Your task to perform on an android device: Search for jbl flip 4 on costco.com, select the first entry, and add it to the cart. Image 0: 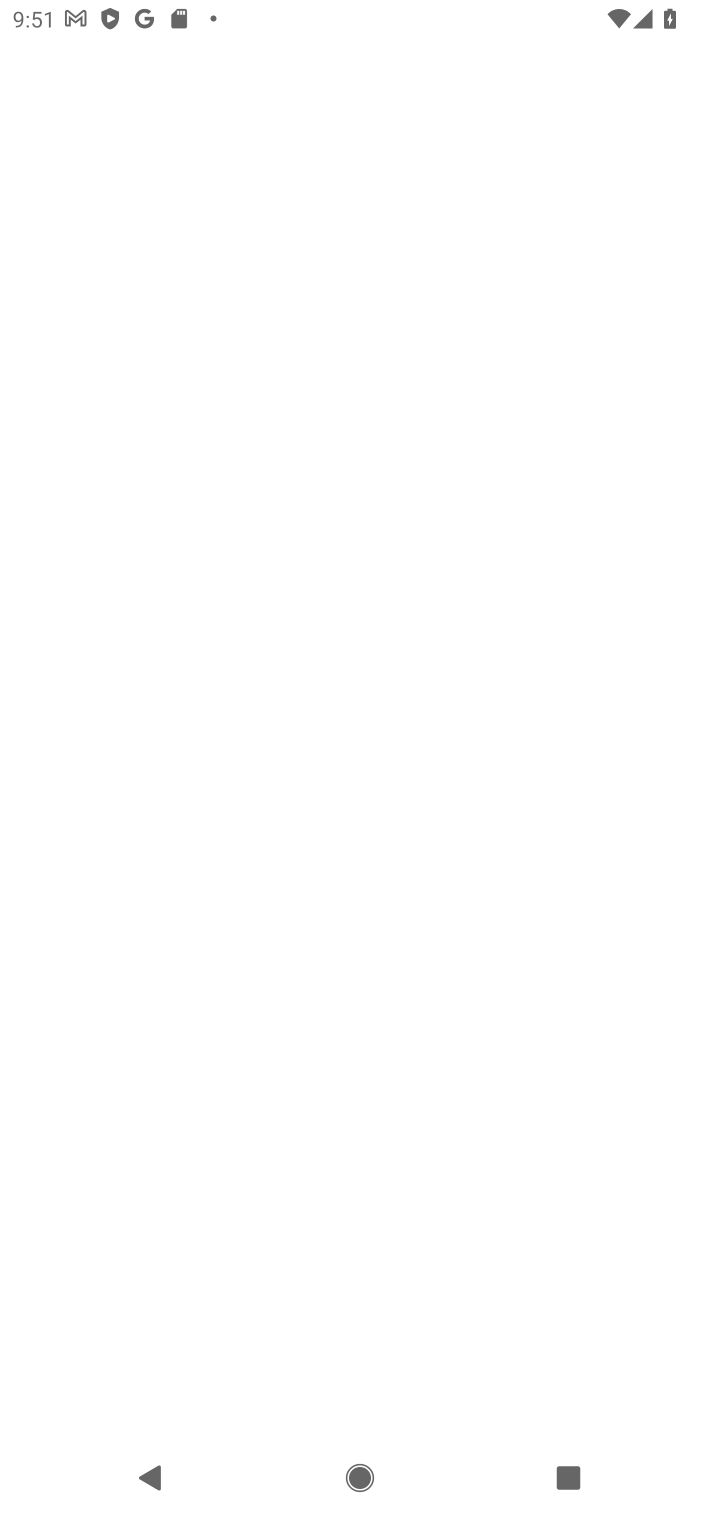
Step 0: press home button
Your task to perform on an android device: Search for jbl flip 4 on costco.com, select the first entry, and add it to the cart. Image 1: 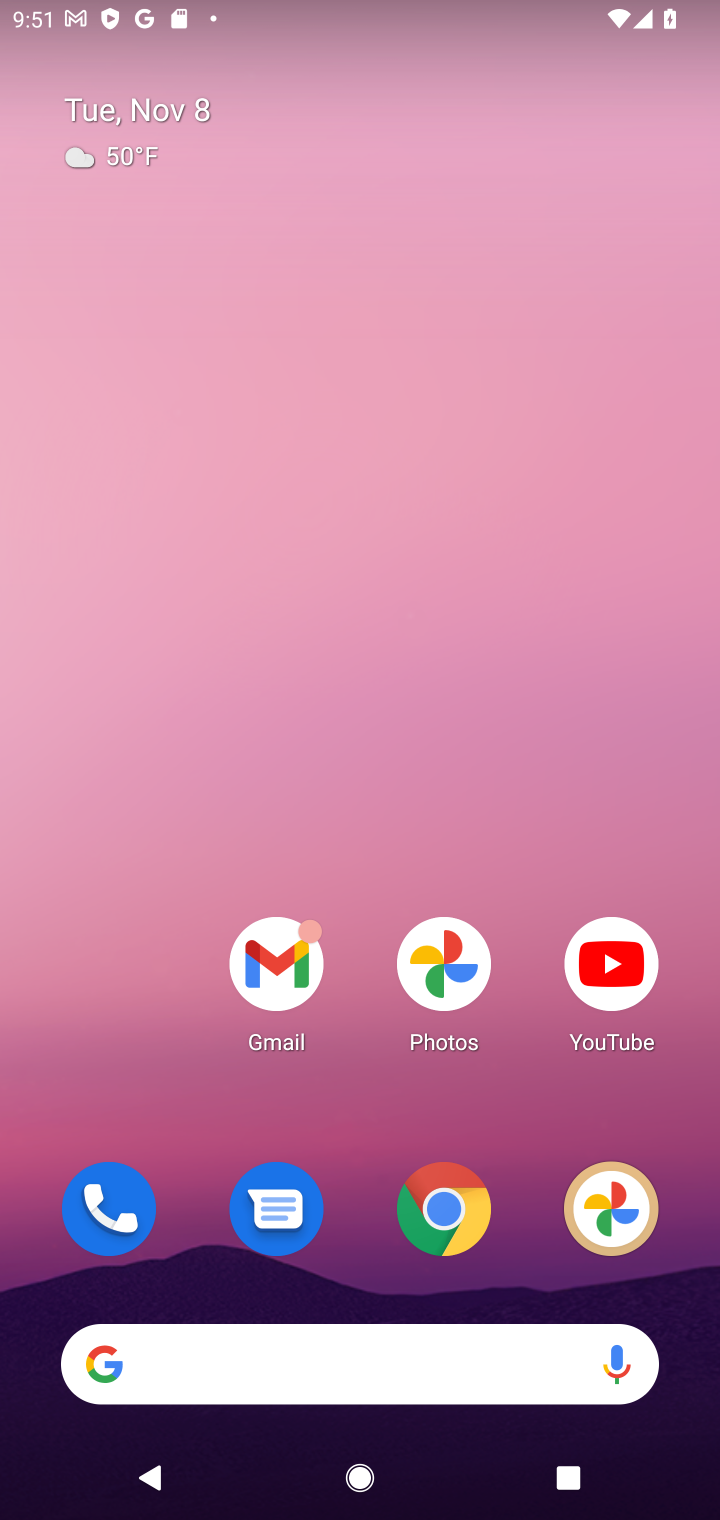
Step 1: click (432, 1213)
Your task to perform on an android device: Search for jbl flip 4 on costco.com, select the first entry, and add it to the cart. Image 2: 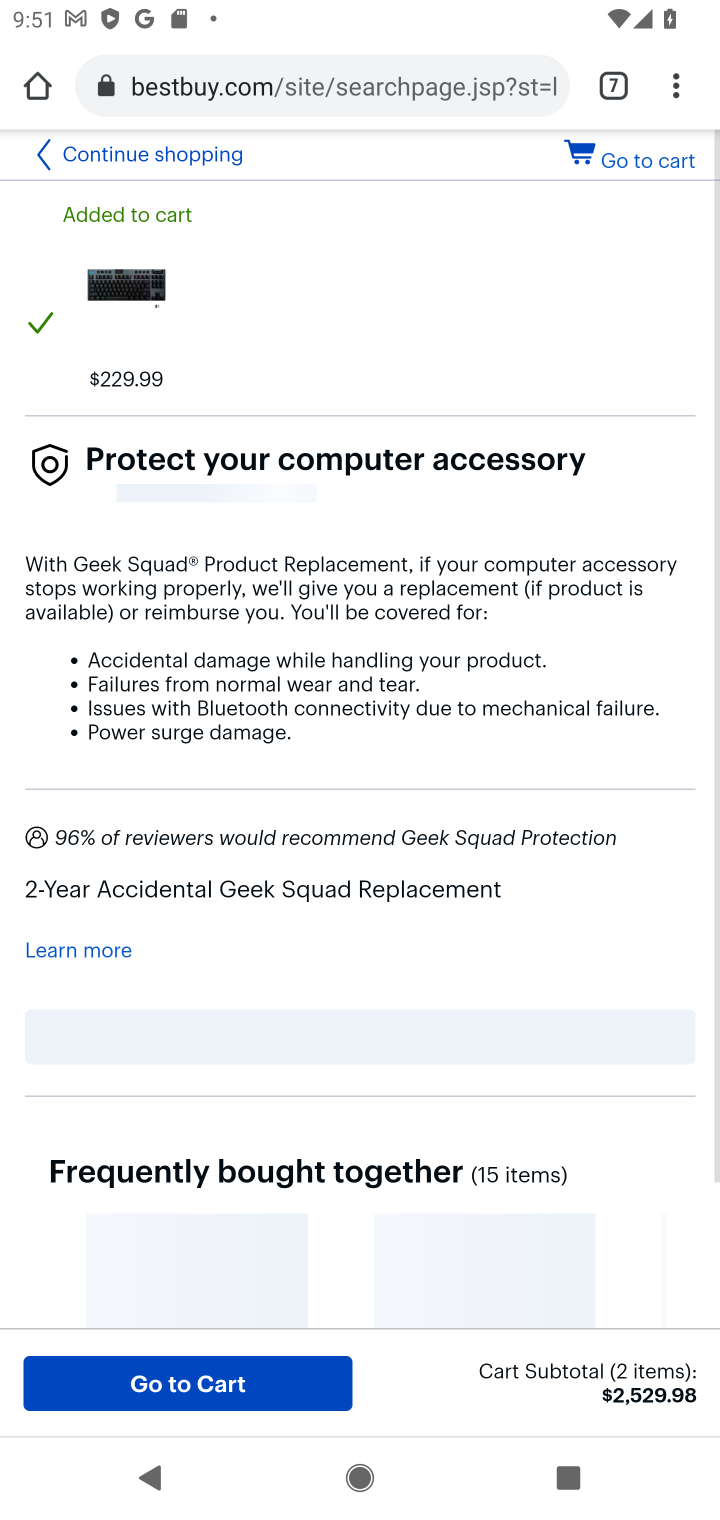
Step 2: click (610, 76)
Your task to perform on an android device: Search for jbl flip 4 on costco.com, select the first entry, and add it to the cart. Image 3: 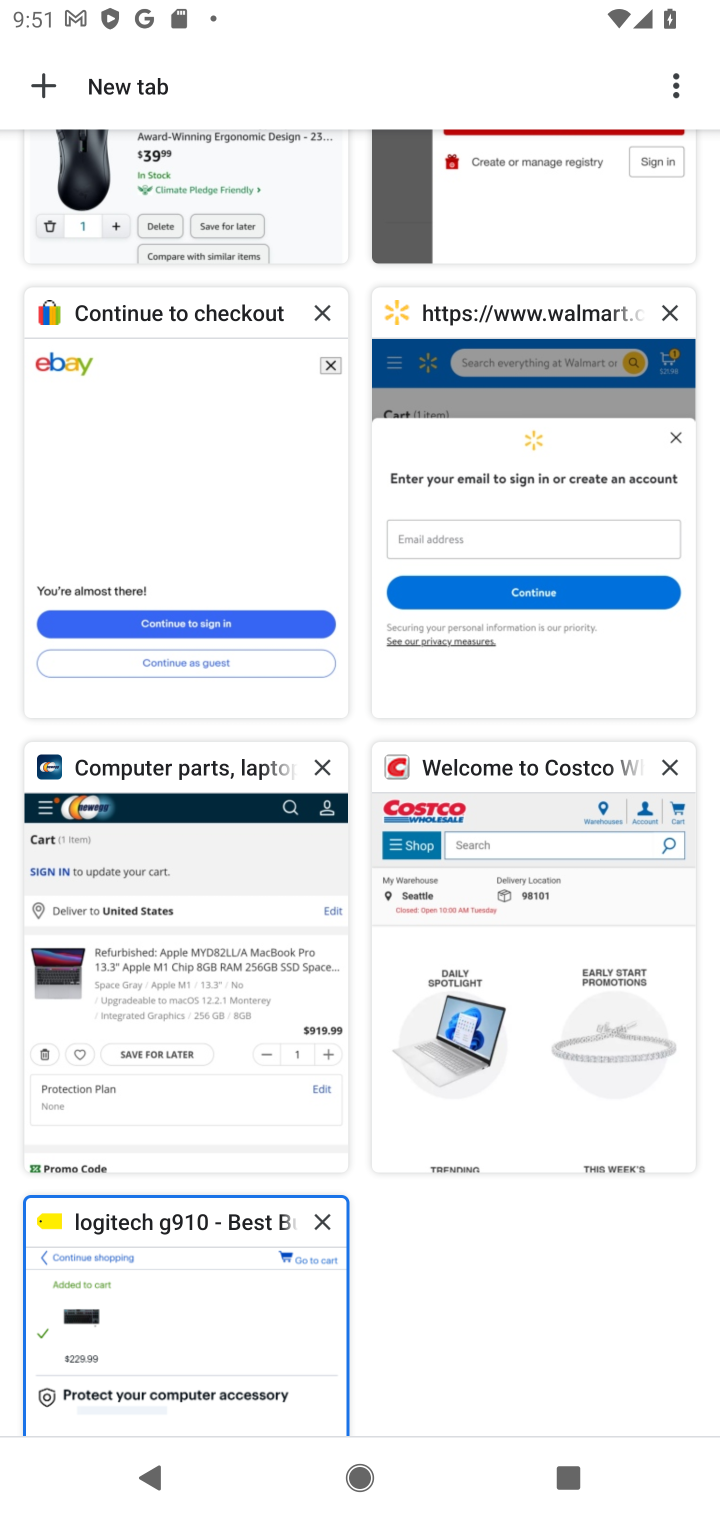
Step 3: click (529, 910)
Your task to perform on an android device: Search for jbl flip 4 on costco.com, select the first entry, and add it to the cart. Image 4: 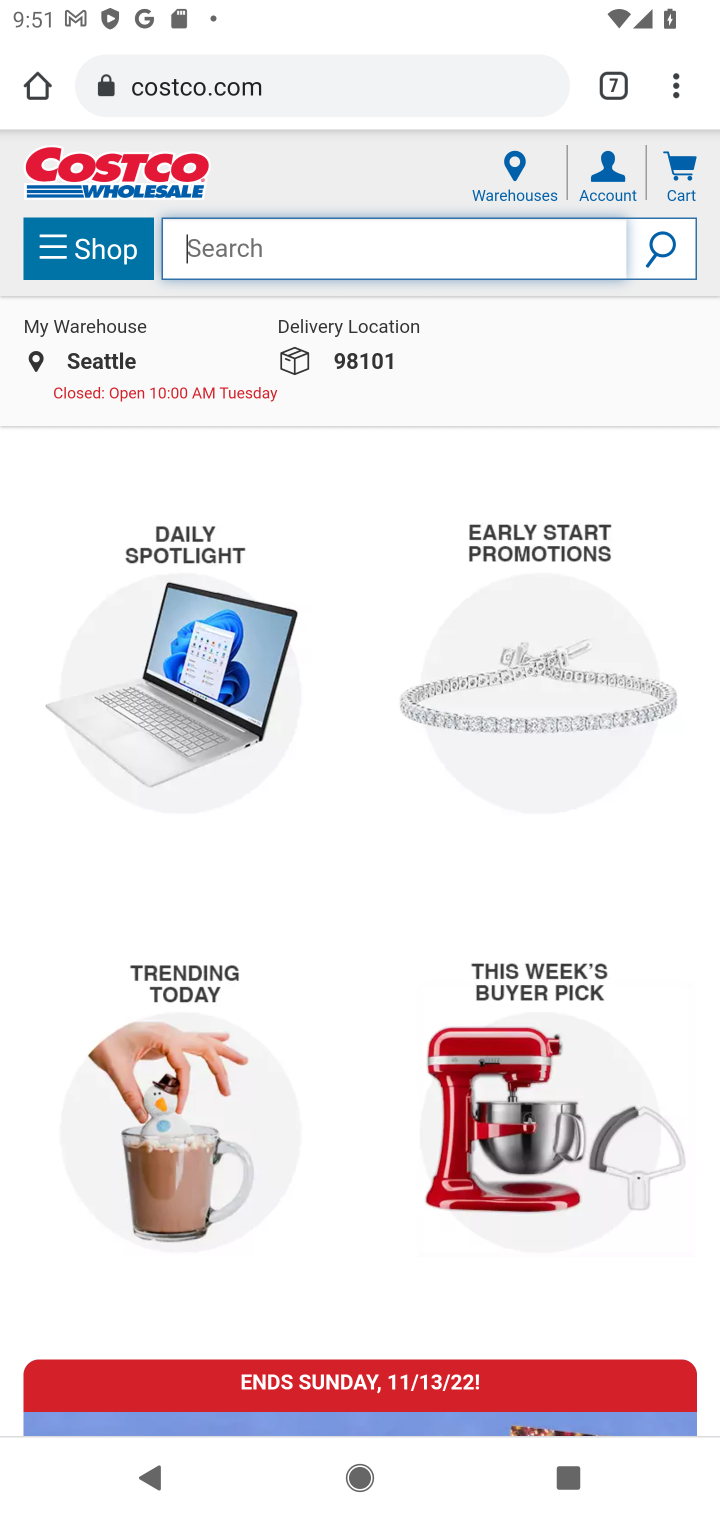
Step 4: click (248, 250)
Your task to perform on an android device: Search for jbl flip 4 on costco.com, select the first entry, and add it to the cart. Image 5: 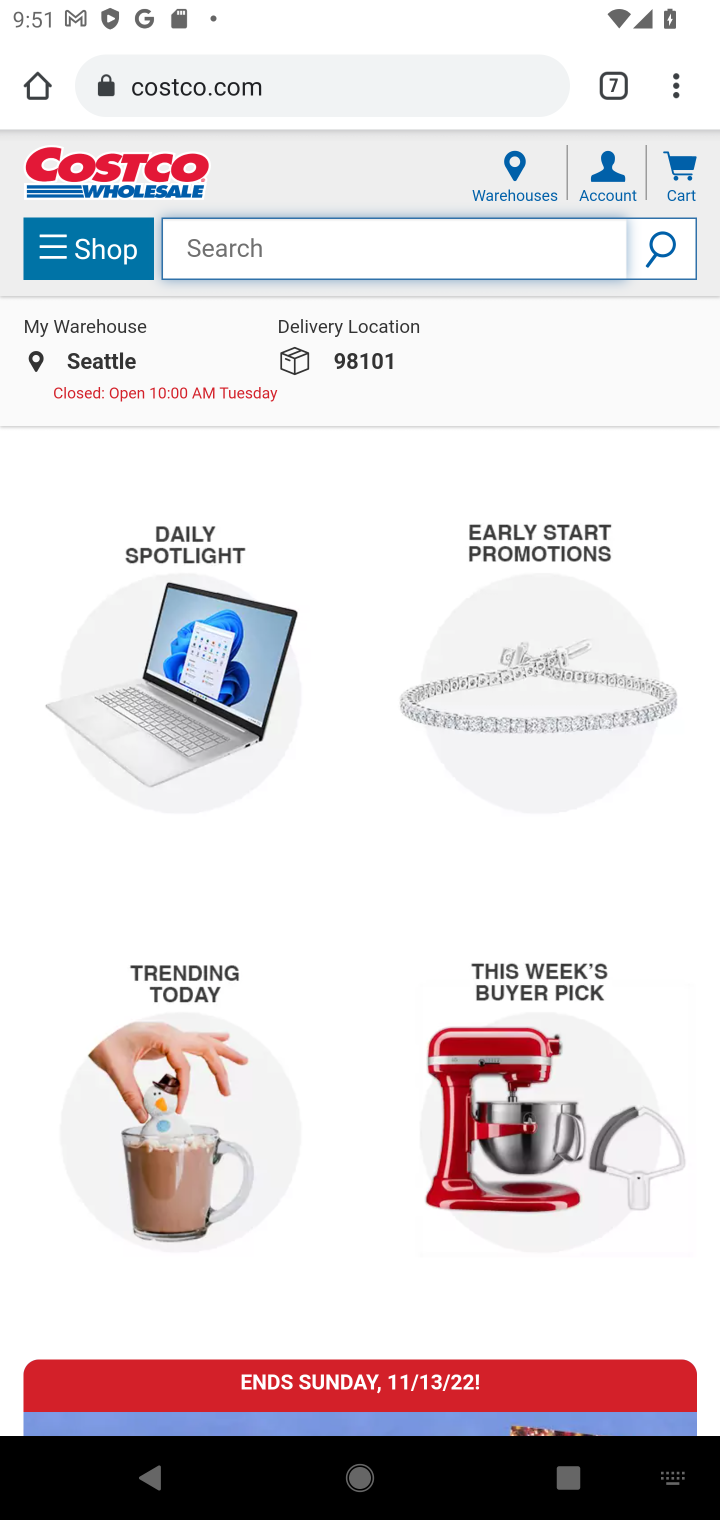
Step 5: type "jbl flip 4"
Your task to perform on an android device: Search for jbl flip 4 on costco.com, select the first entry, and add it to the cart. Image 6: 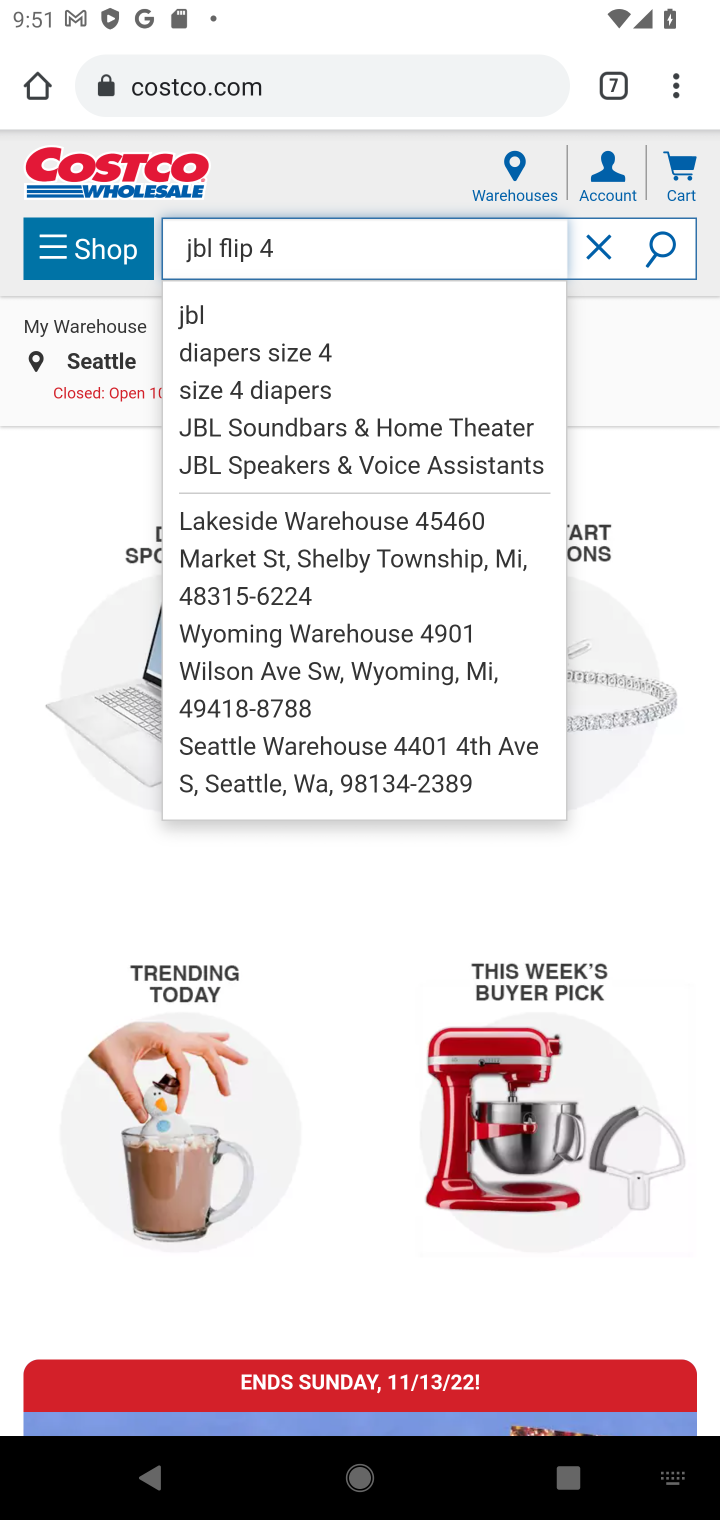
Step 6: click (219, 424)
Your task to perform on an android device: Search for jbl flip 4 on costco.com, select the first entry, and add it to the cart. Image 7: 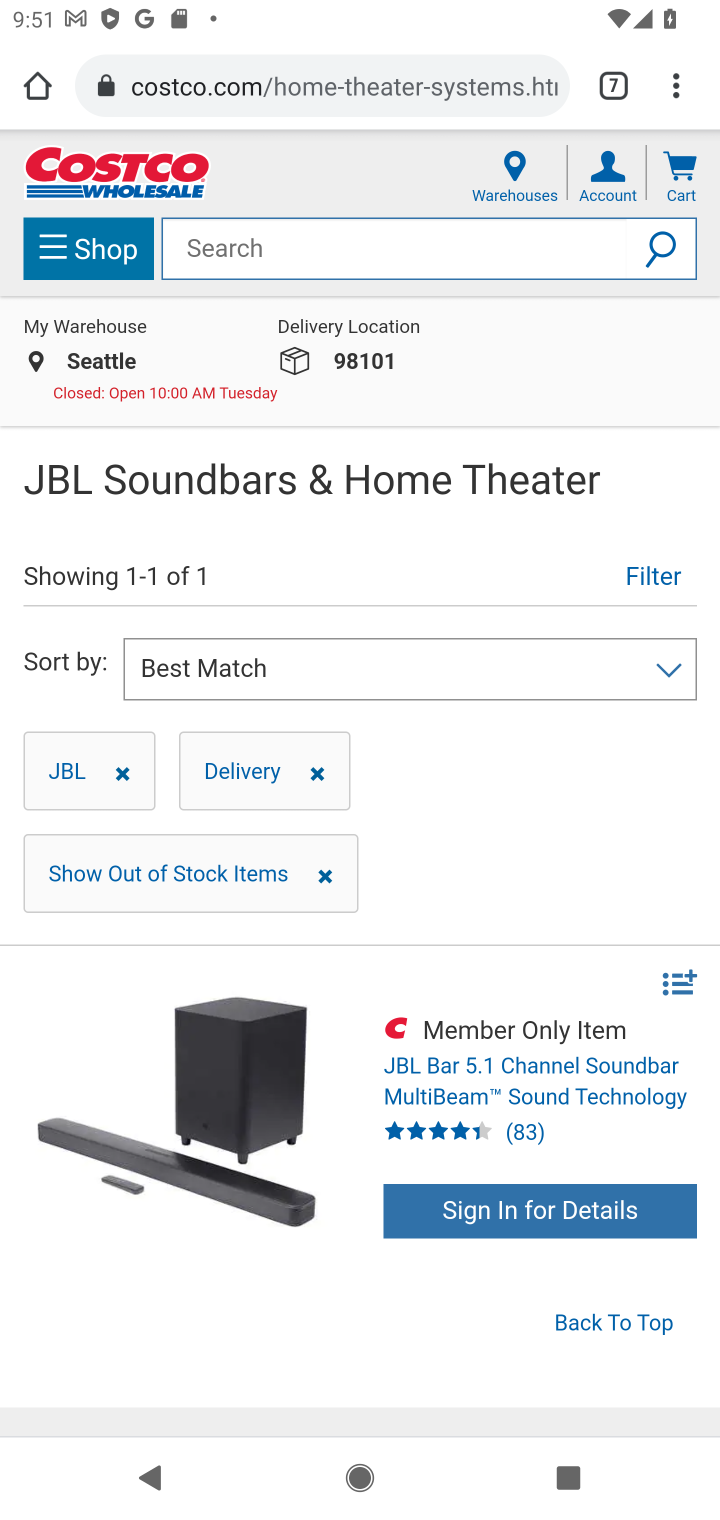
Step 7: drag from (306, 1301) to (423, 607)
Your task to perform on an android device: Search for jbl flip 4 on costco.com, select the first entry, and add it to the cart. Image 8: 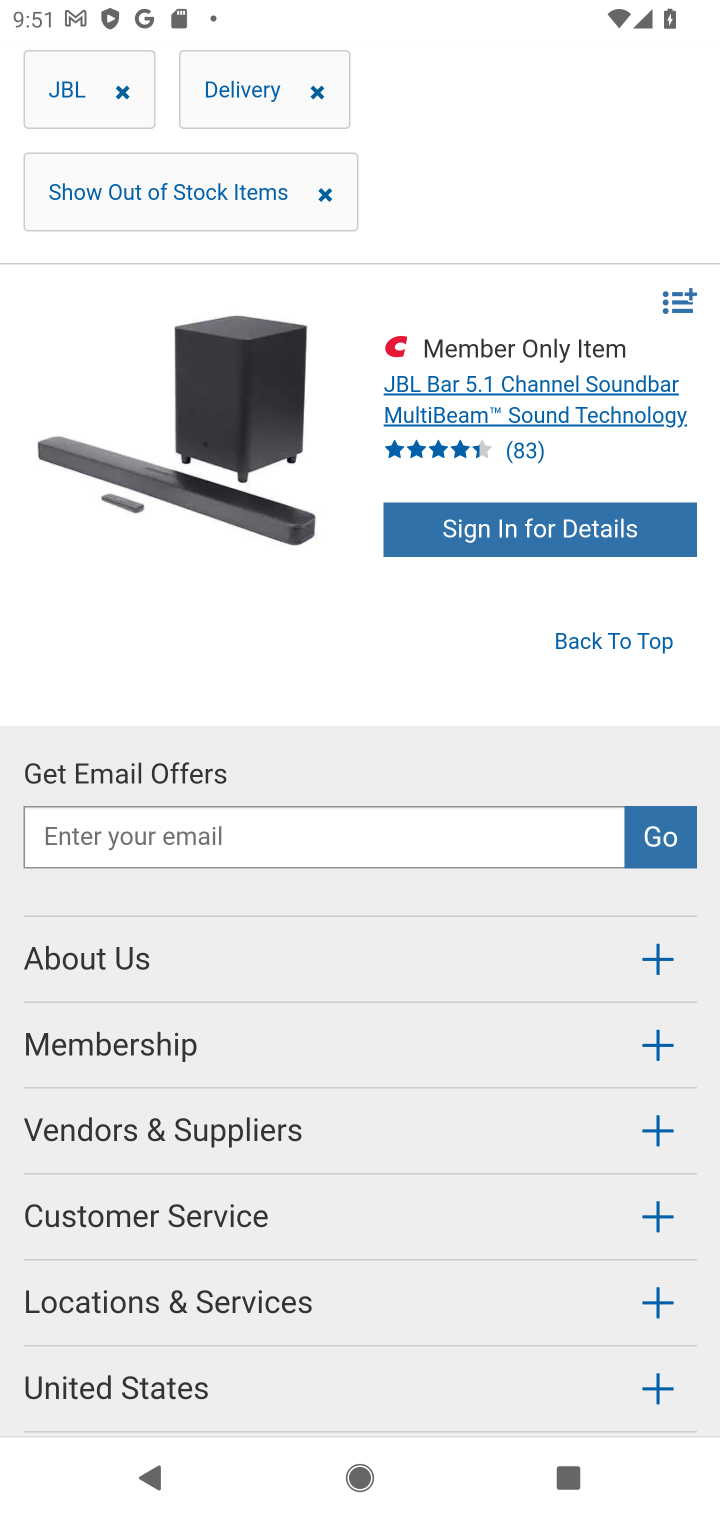
Step 8: click (562, 405)
Your task to perform on an android device: Search for jbl flip 4 on costco.com, select the first entry, and add it to the cart. Image 9: 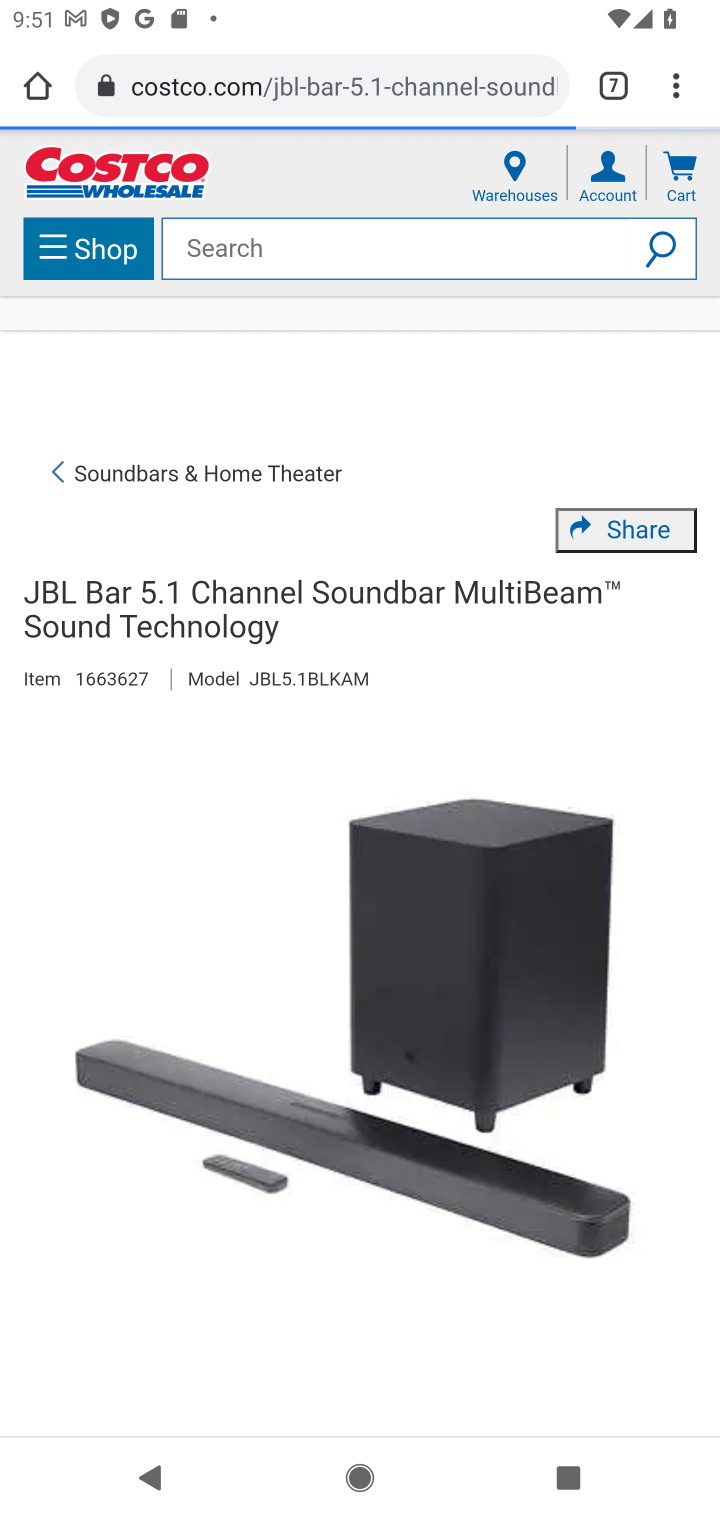
Step 9: drag from (409, 1364) to (430, 723)
Your task to perform on an android device: Search for jbl flip 4 on costco.com, select the first entry, and add it to the cart. Image 10: 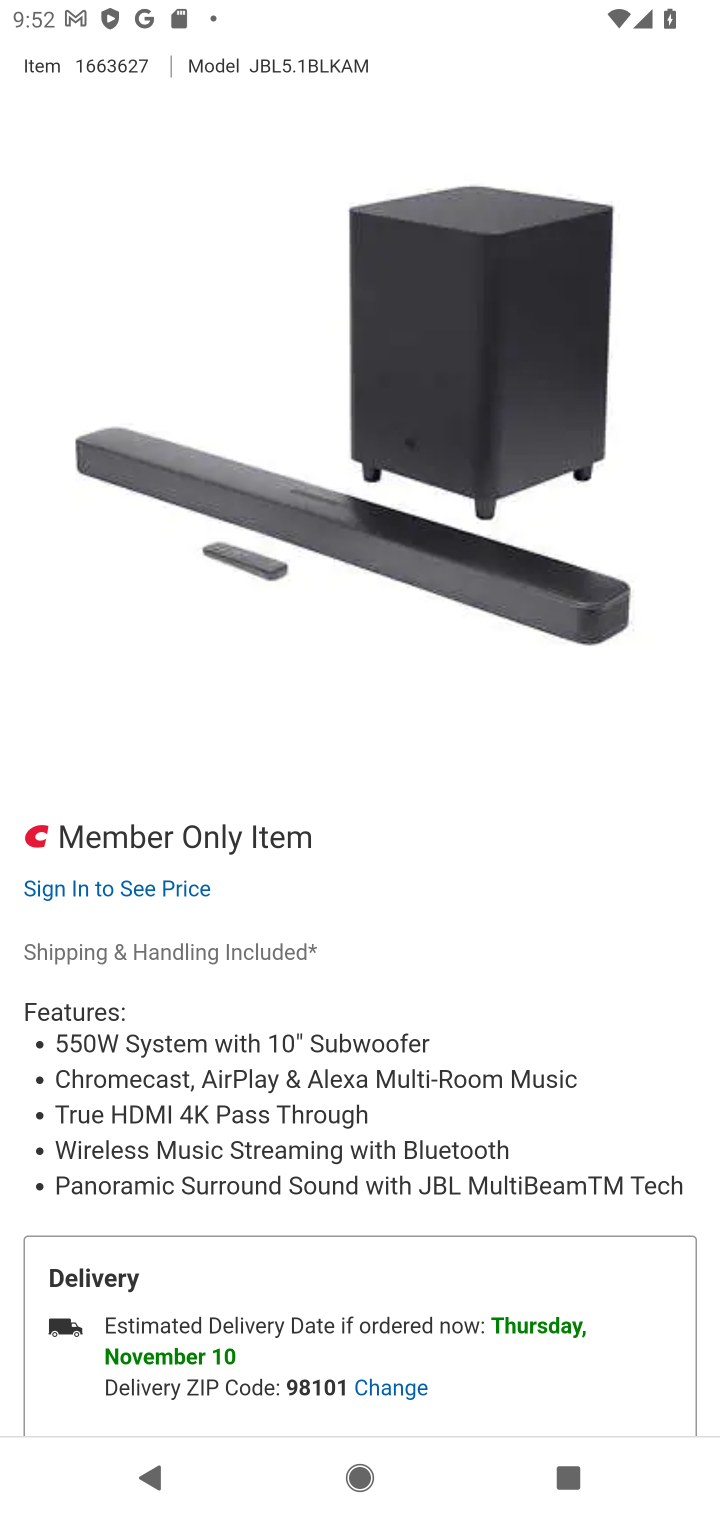
Step 10: drag from (494, 1227) to (486, 899)
Your task to perform on an android device: Search for jbl flip 4 on costco.com, select the first entry, and add it to the cart. Image 11: 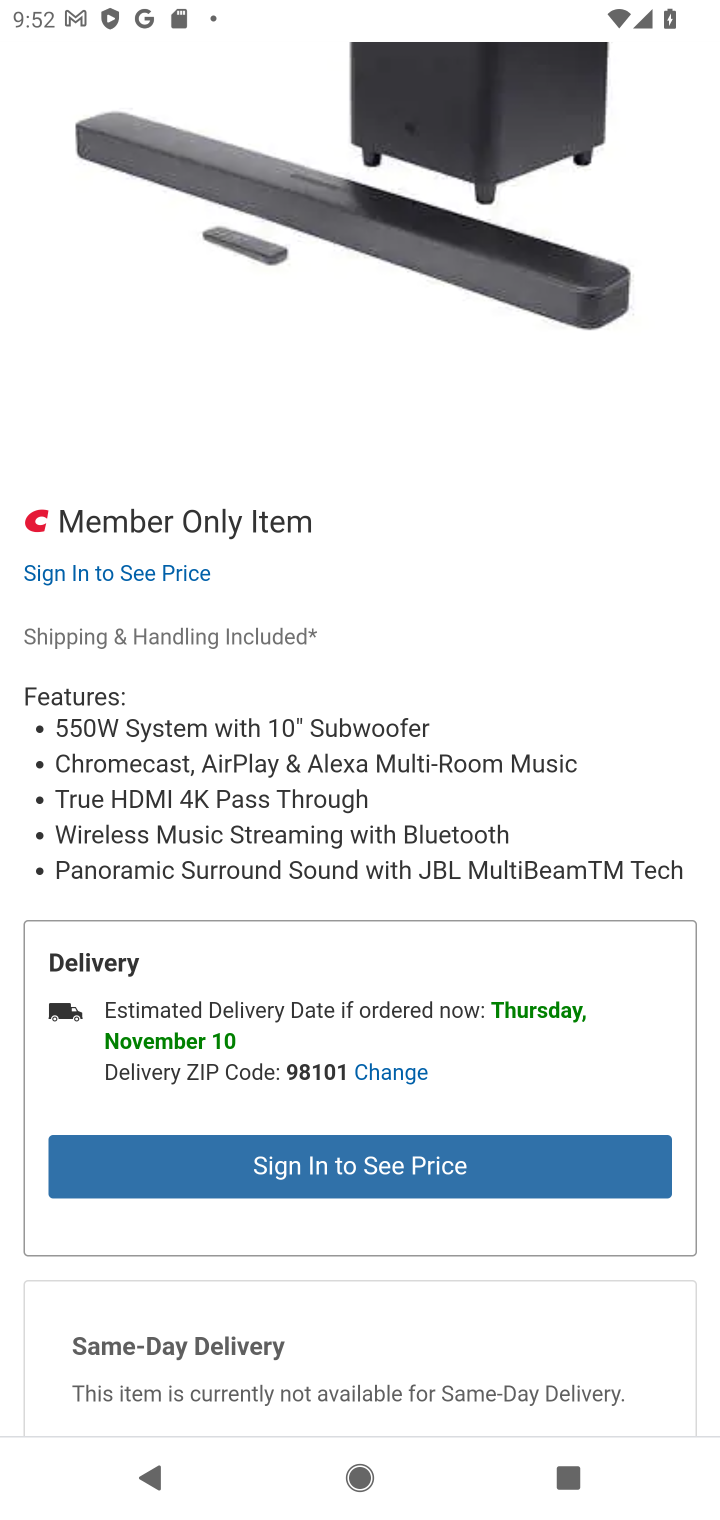
Step 11: drag from (496, 1264) to (550, 641)
Your task to perform on an android device: Search for jbl flip 4 on costco.com, select the first entry, and add it to the cart. Image 12: 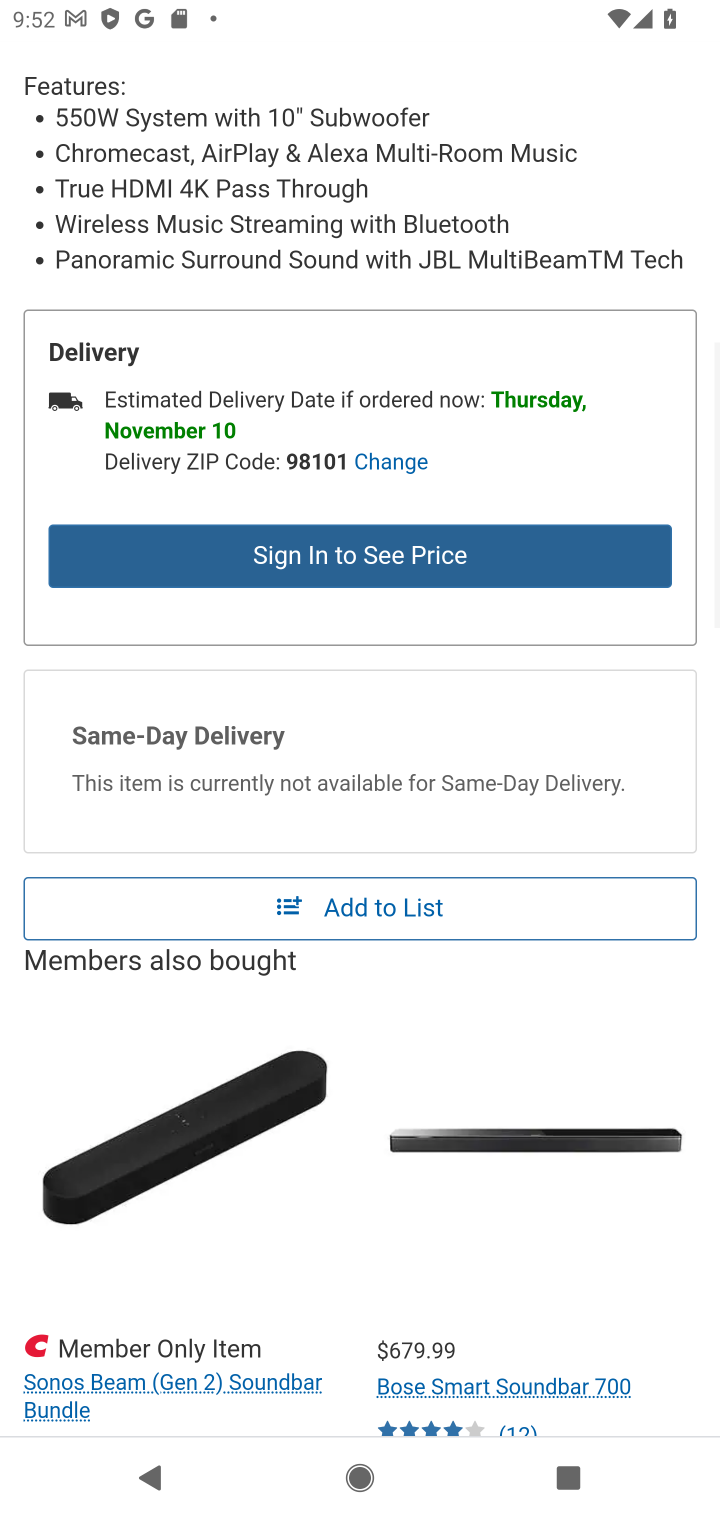
Step 12: click (344, 910)
Your task to perform on an android device: Search for jbl flip 4 on costco.com, select the first entry, and add it to the cart. Image 13: 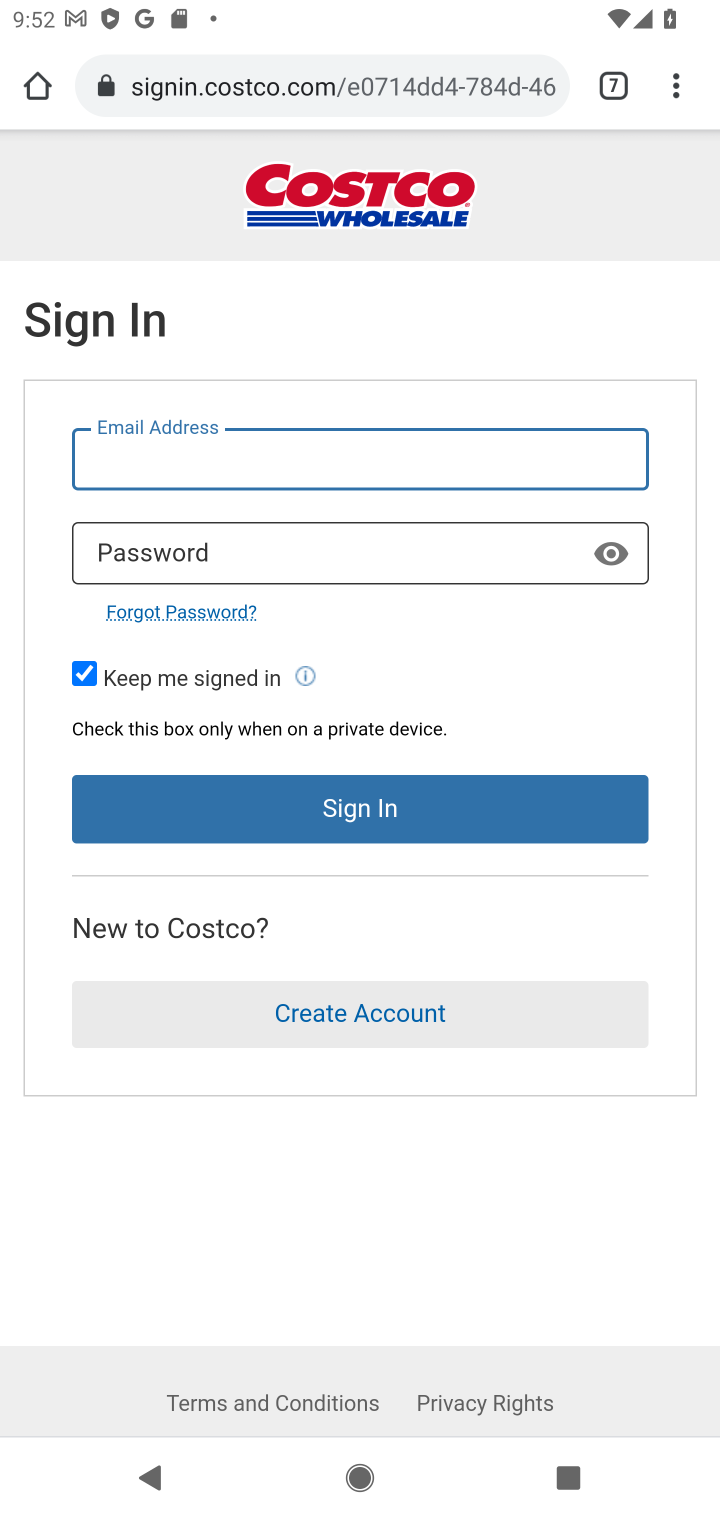
Step 13: task complete